Your task to perform on an android device: Go to Yahoo.com Image 0: 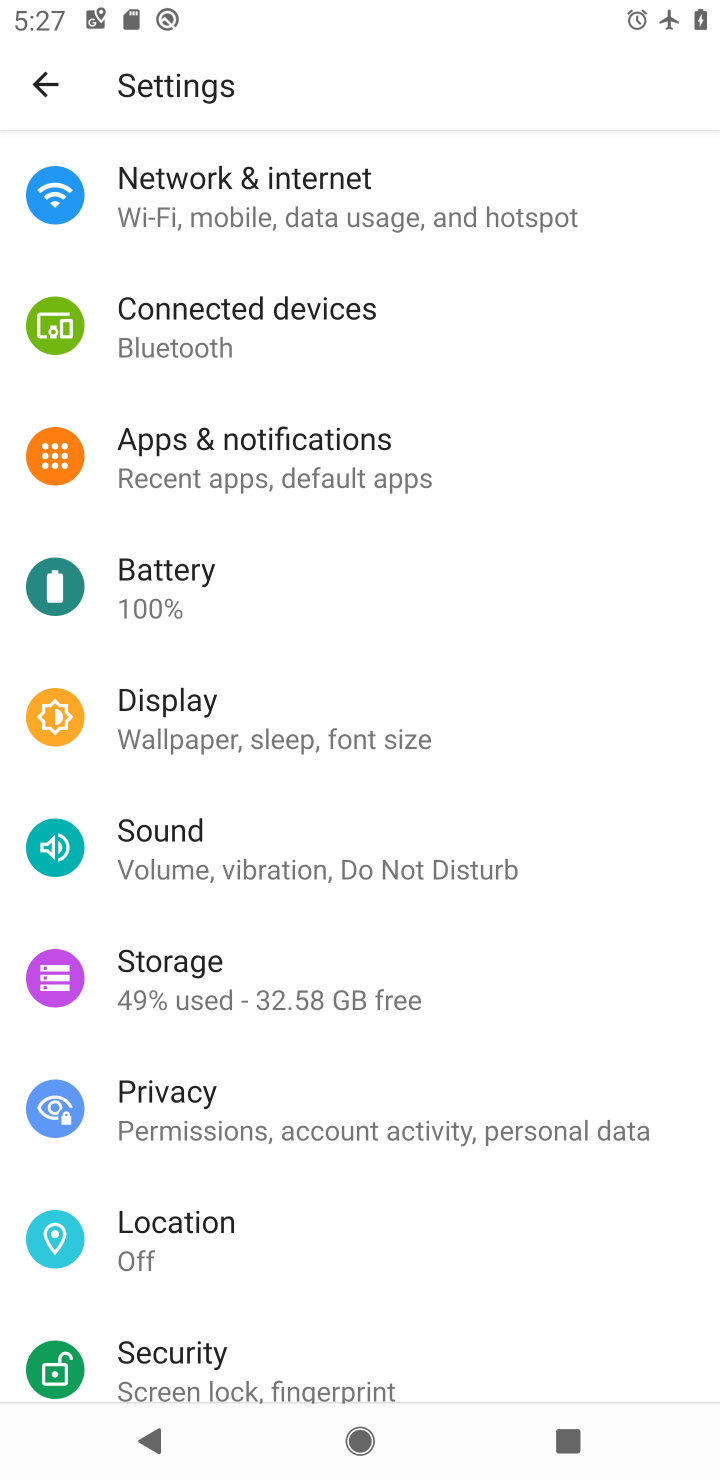
Step 0: press home button
Your task to perform on an android device: Go to Yahoo.com Image 1: 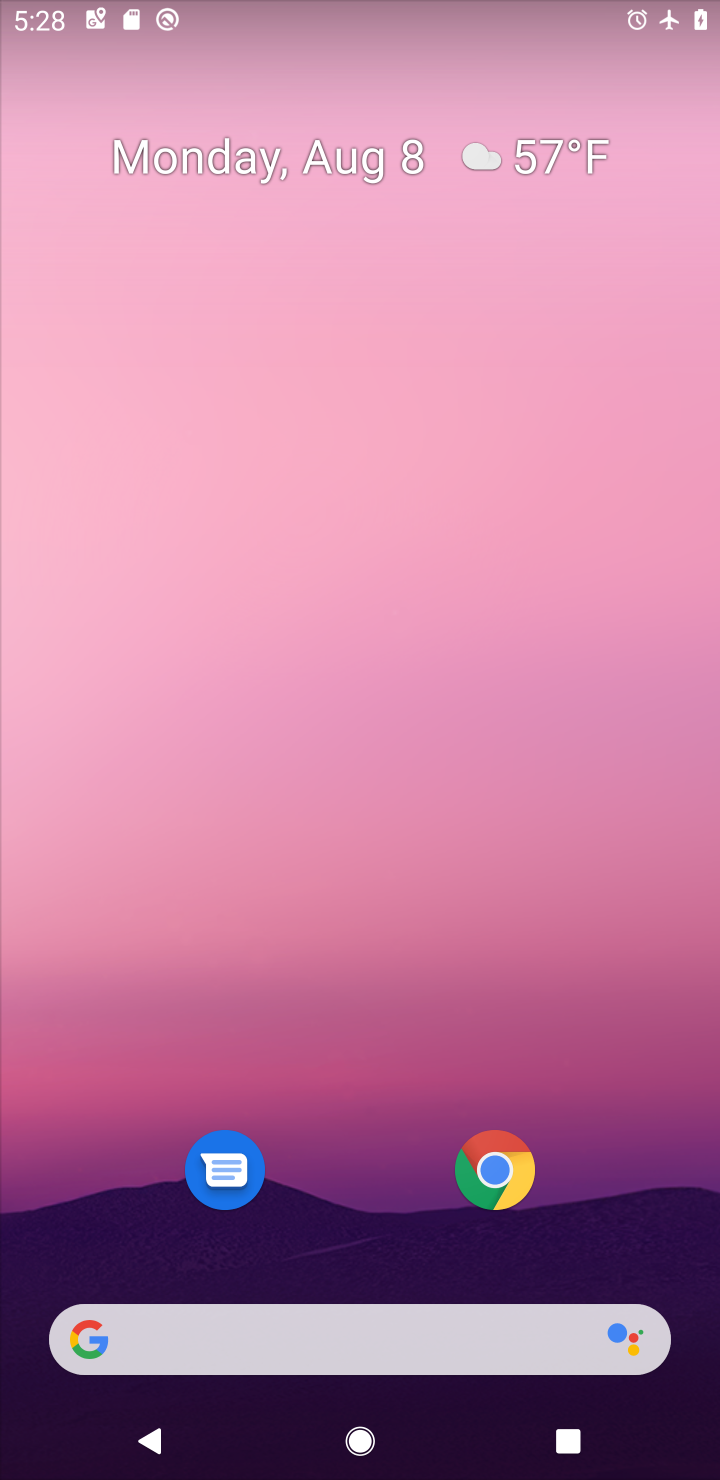
Step 1: click (518, 1160)
Your task to perform on an android device: Go to Yahoo.com Image 2: 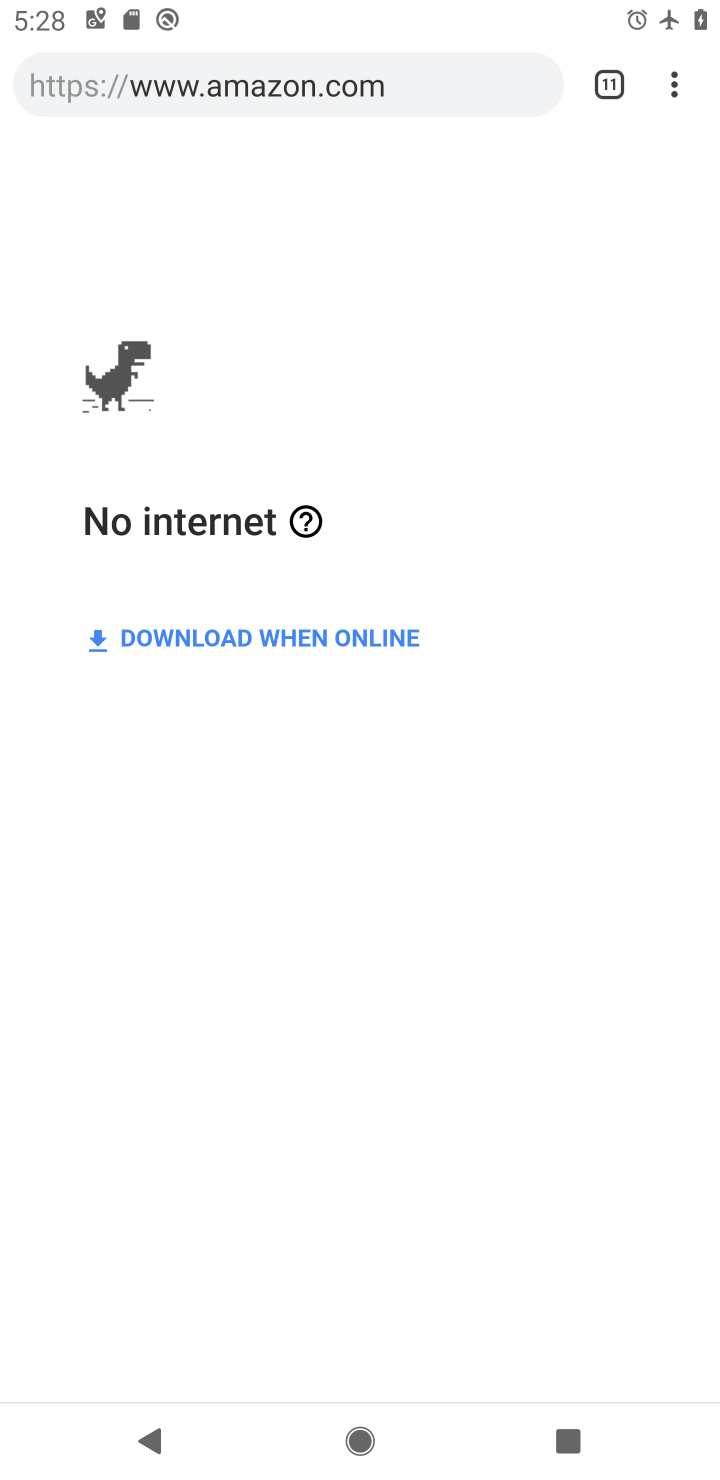
Step 2: task complete